Your task to perform on an android device: Open the web browser Image 0: 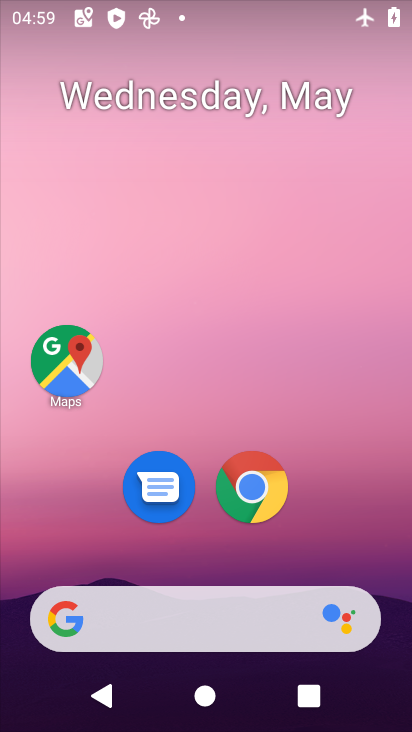
Step 0: drag from (330, 541) to (347, 115)
Your task to perform on an android device: Open the web browser Image 1: 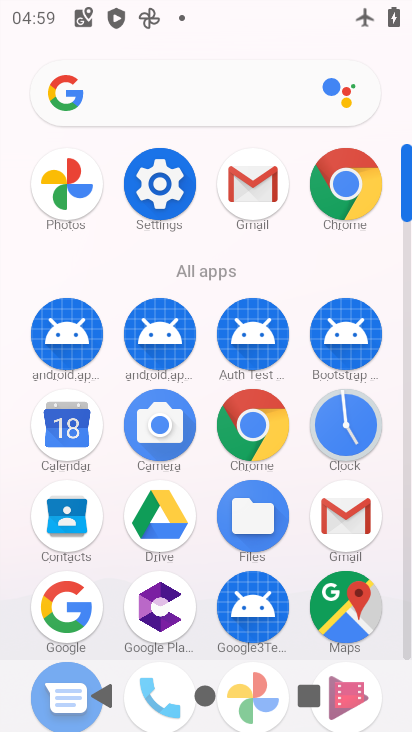
Step 1: click (143, 176)
Your task to perform on an android device: Open the web browser Image 2: 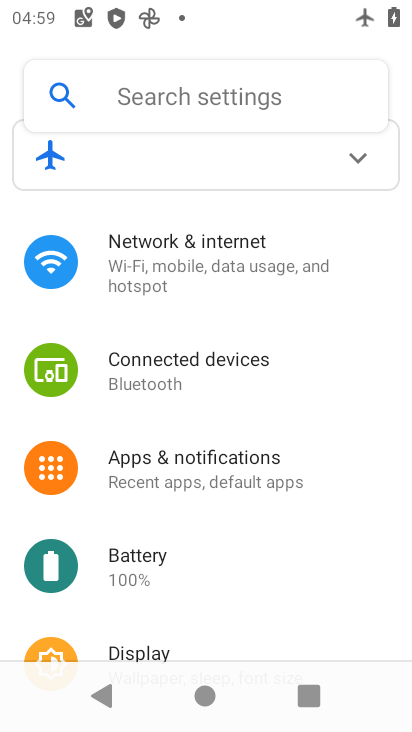
Step 2: click (359, 165)
Your task to perform on an android device: Open the web browser Image 3: 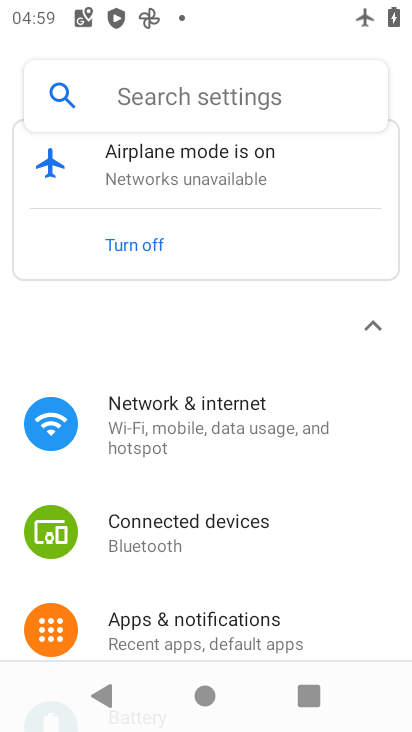
Step 3: click (198, 238)
Your task to perform on an android device: Open the web browser Image 4: 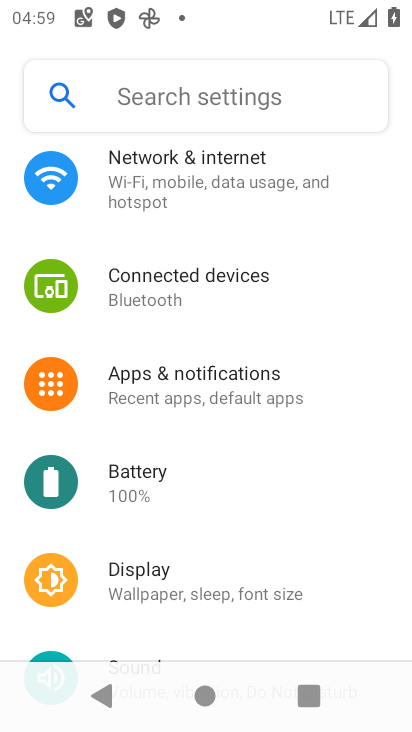
Step 4: press home button
Your task to perform on an android device: Open the web browser Image 5: 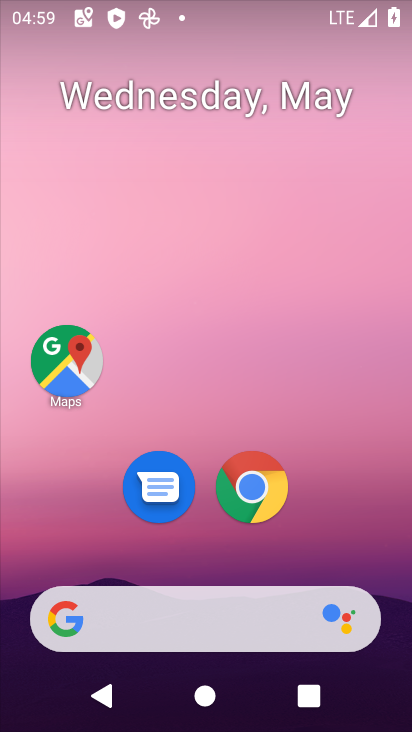
Step 5: click (281, 494)
Your task to perform on an android device: Open the web browser Image 6: 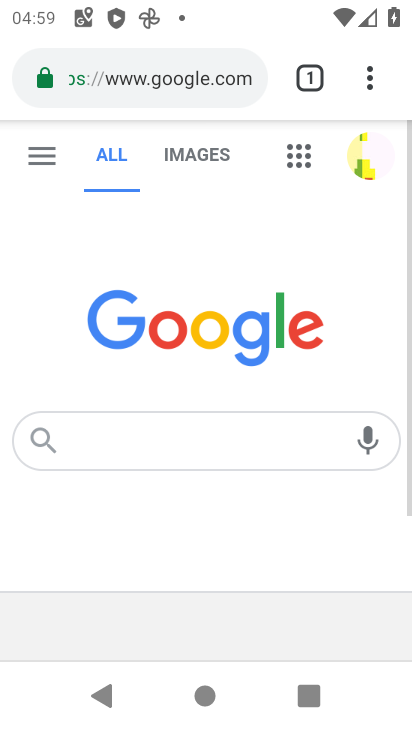
Step 6: task complete